Your task to perform on an android device: open sync settings in chrome Image 0: 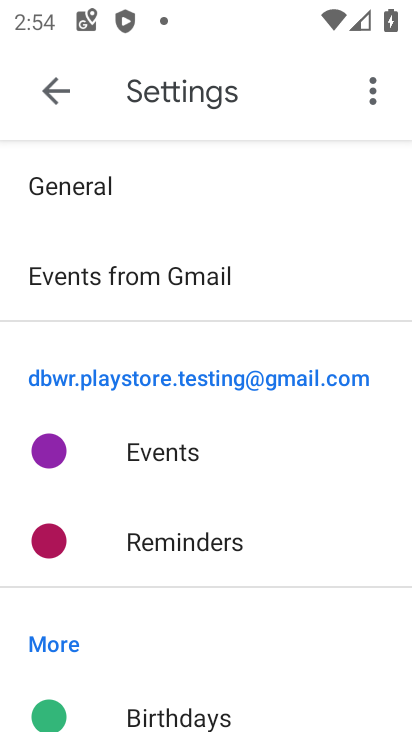
Step 0: press back button
Your task to perform on an android device: open sync settings in chrome Image 1: 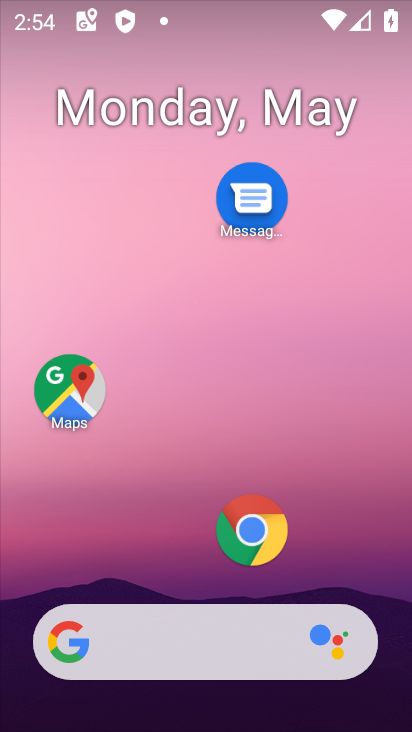
Step 1: click (246, 523)
Your task to perform on an android device: open sync settings in chrome Image 2: 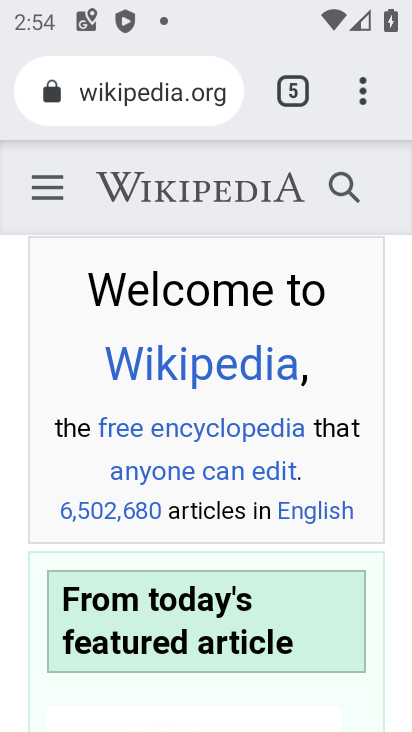
Step 2: drag from (365, 74) to (103, 560)
Your task to perform on an android device: open sync settings in chrome Image 3: 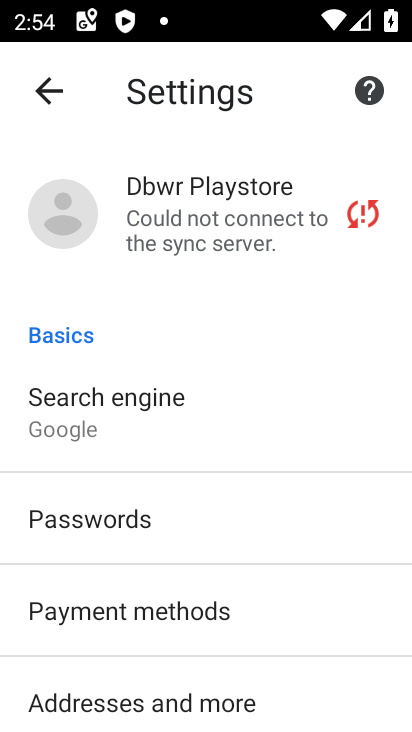
Step 3: click (194, 224)
Your task to perform on an android device: open sync settings in chrome Image 4: 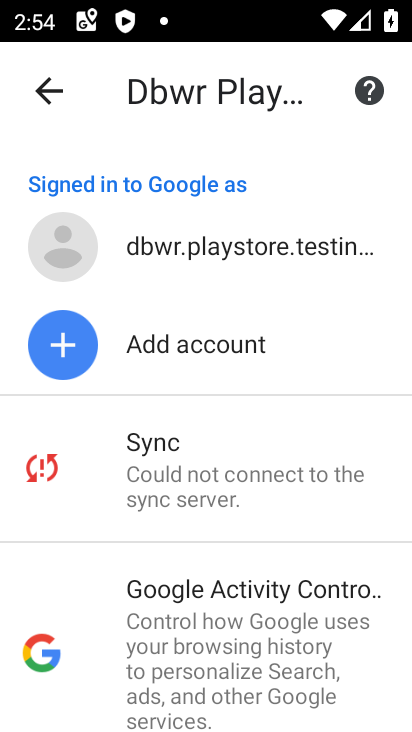
Step 4: task complete